Your task to perform on an android device: Open my contact list Image 0: 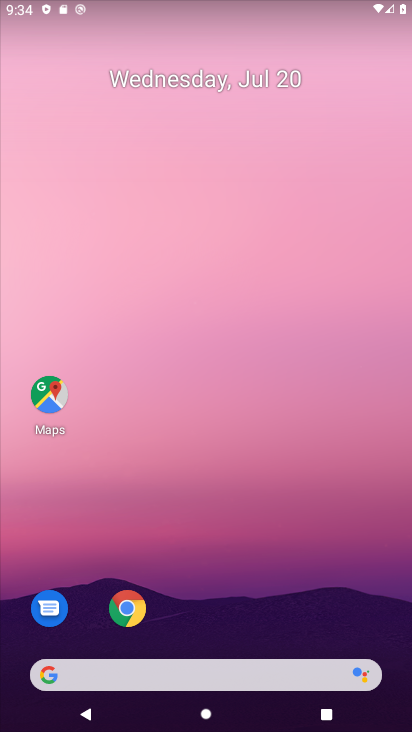
Step 0: drag from (228, 654) to (228, 286)
Your task to perform on an android device: Open my contact list Image 1: 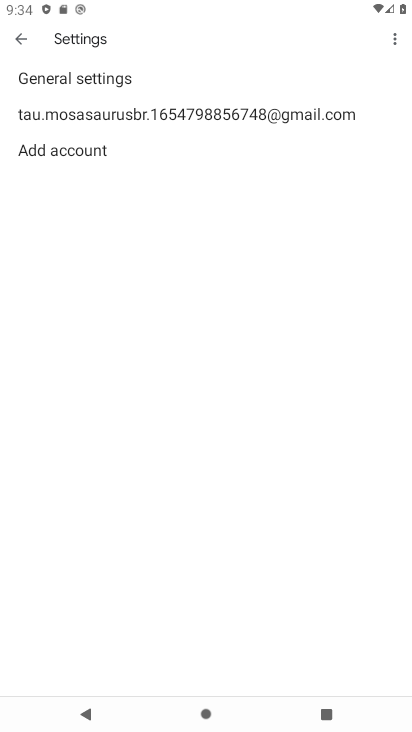
Step 1: click (7, 22)
Your task to perform on an android device: Open my contact list Image 2: 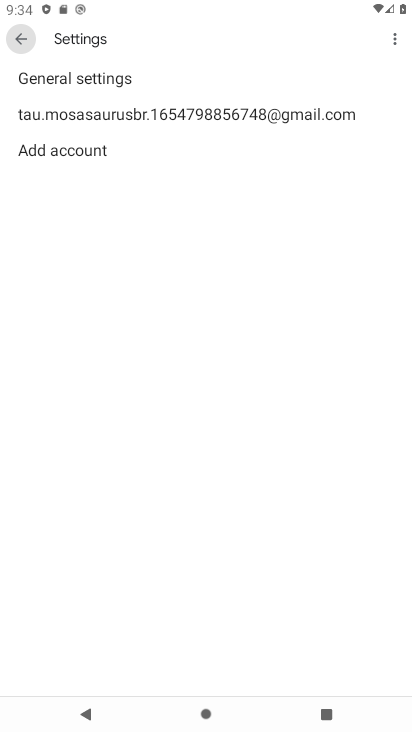
Step 2: click (20, 37)
Your task to perform on an android device: Open my contact list Image 3: 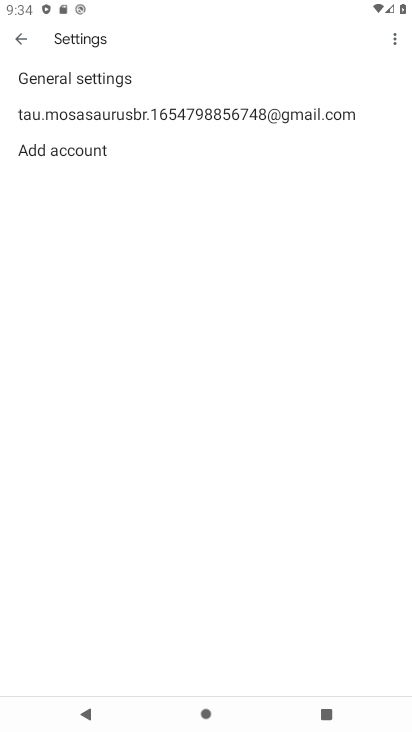
Step 3: click (20, 37)
Your task to perform on an android device: Open my contact list Image 4: 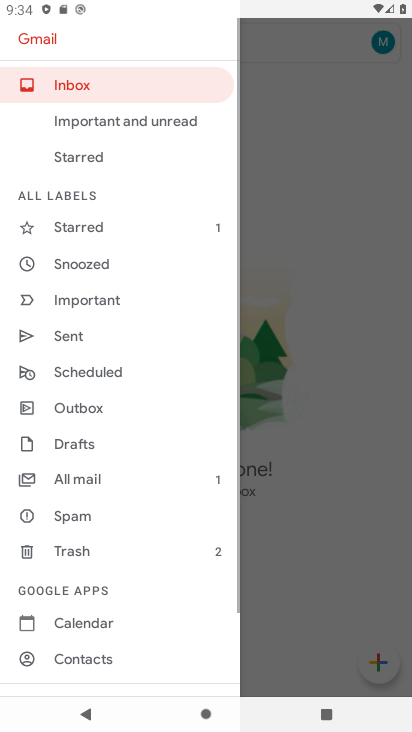
Step 4: press back button
Your task to perform on an android device: Open my contact list Image 5: 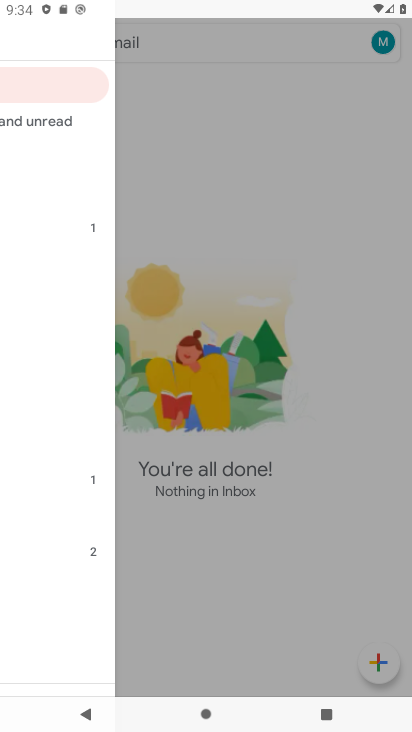
Step 5: press back button
Your task to perform on an android device: Open my contact list Image 6: 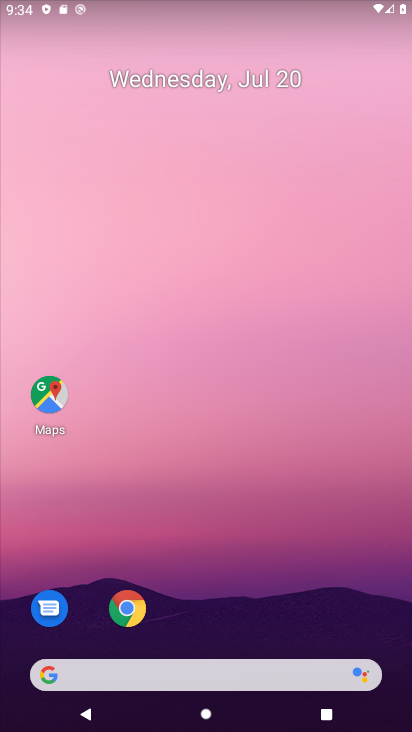
Step 6: drag from (264, 671) to (260, 135)
Your task to perform on an android device: Open my contact list Image 7: 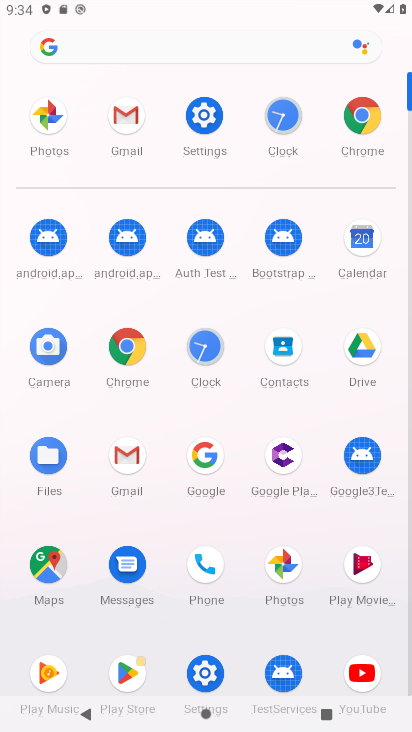
Step 7: click (292, 349)
Your task to perform on an android device: Open my contact list Image 8: 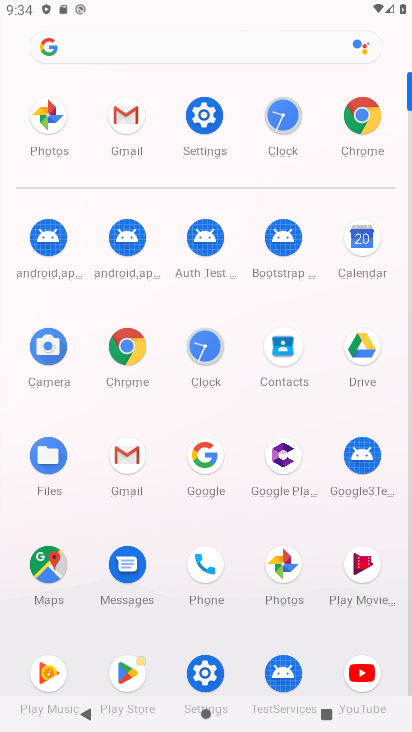
Step 8: click (293, 352)
Your task to perform on an android device: Open my contact list Image 9: 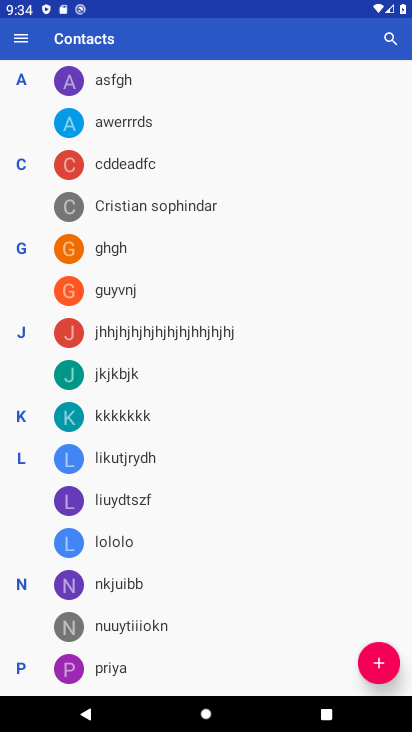
Step 9: task complete